Your task to perform on an android device: Check the news Image 0: 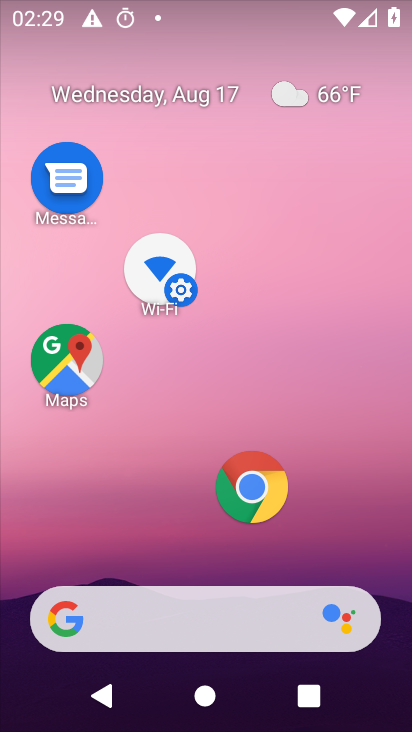
Step 0: click (66, 608)
Your task to perform on an android device: Check the news Image 1: 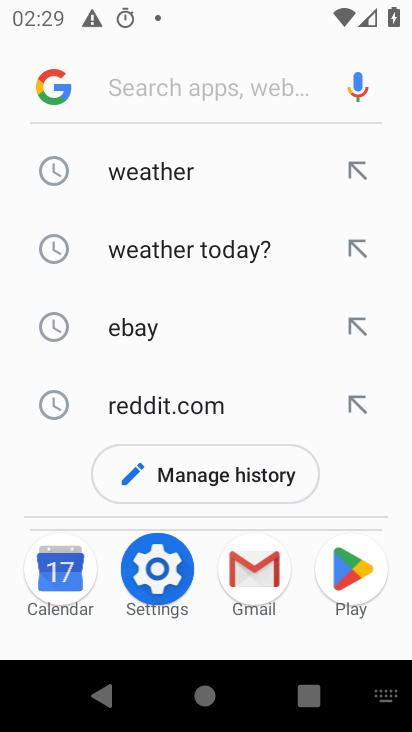
Step 1: type "news"
Your task to perform on an android device: Check the news Image 2: 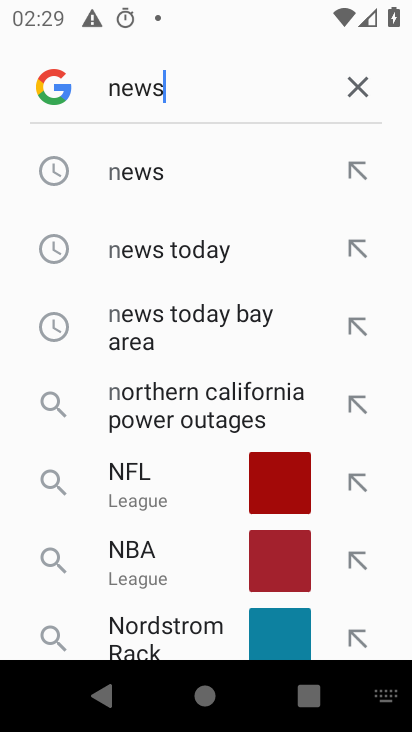
Step 2: press enter
Your task to perform on an android device: Check the news Image 3: 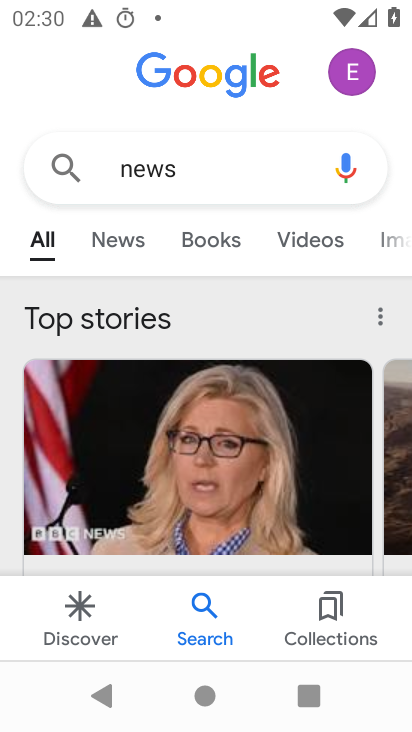
Step 3: press home button
Your task to perform on an android device: Check the news Image 4: 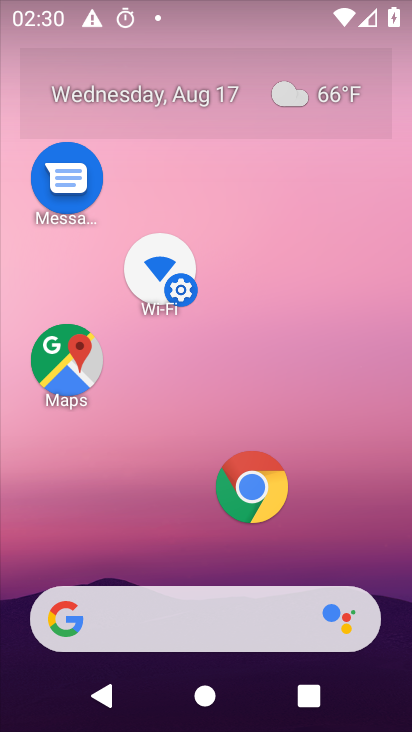
Step 4: click (90, 621)
Your task to perform on an android device: Check the news Image 5: 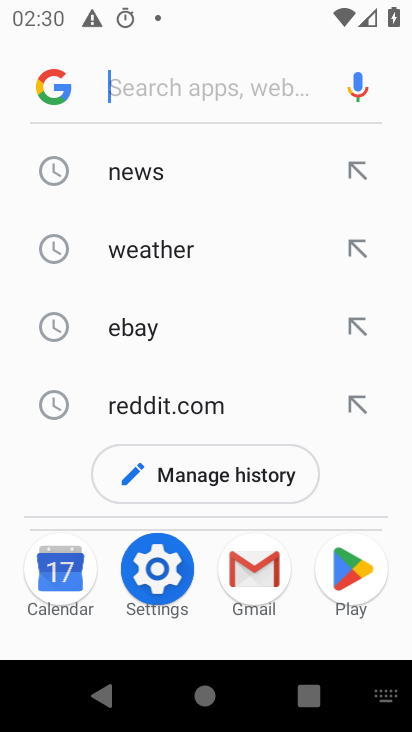
Step 5: click (133, 177)
Your task to perform on an android device: Check the news Image 6: 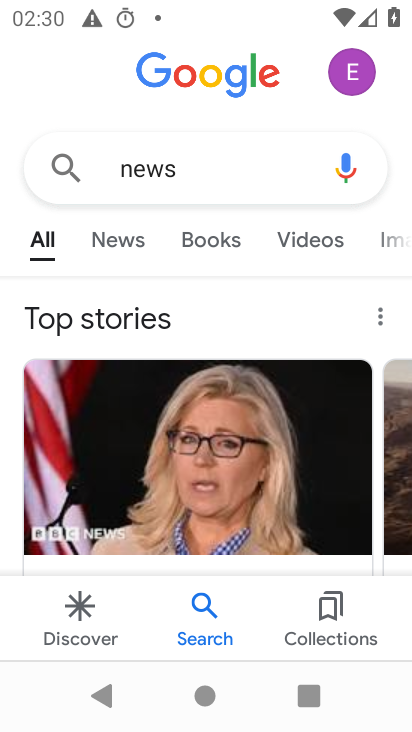
Step 6: task complete